Your task to perform on an android device: open chrome and create a bookmark for the current page Image 0: 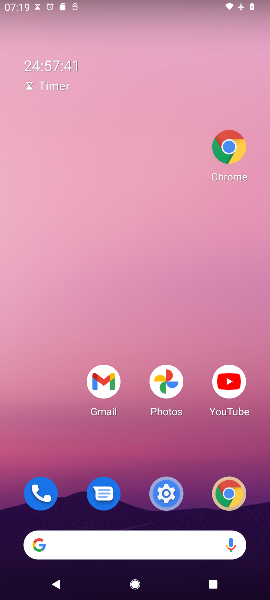
Step 0: press home button
Your task to perform on an android device: open chrome and create a bookmark for the current page Image 1: 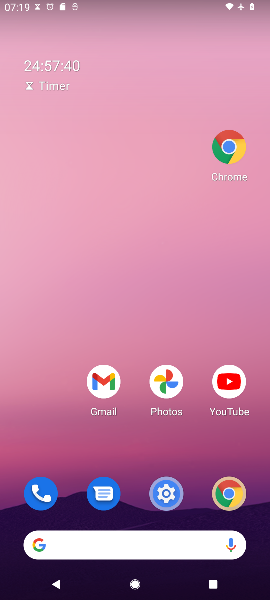
Step 1: click (224, 494)
Your task to perform on an android device: open chrome and create a bookmark for the current page Image 2: 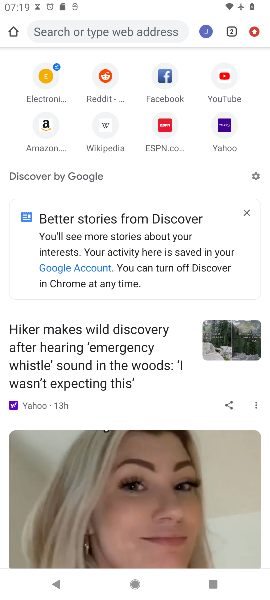
Step 2: click (255, 33)
Your task to perform on an android device: open chrome and create a bookmark for the current page Image 3: 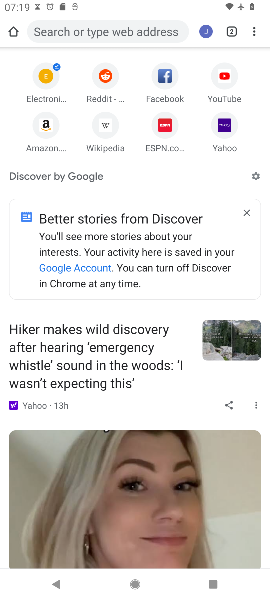
Step 3: task complete